Your task to perform on an android device: choose inbox layout in the gmail app Image 0: 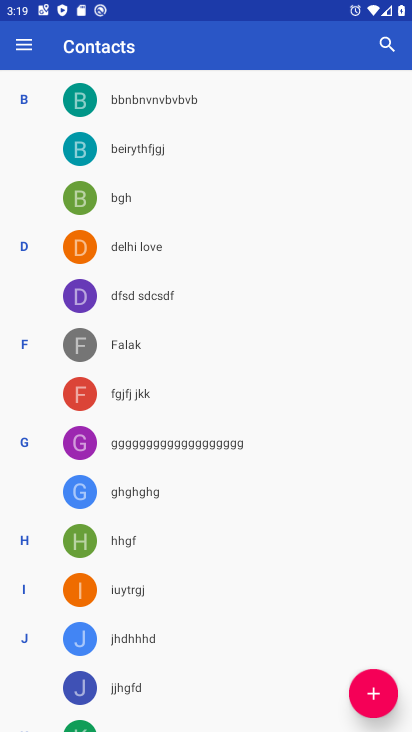
Step 0: task complete